Your task to perform on an android device: toggle wifi Image 0: 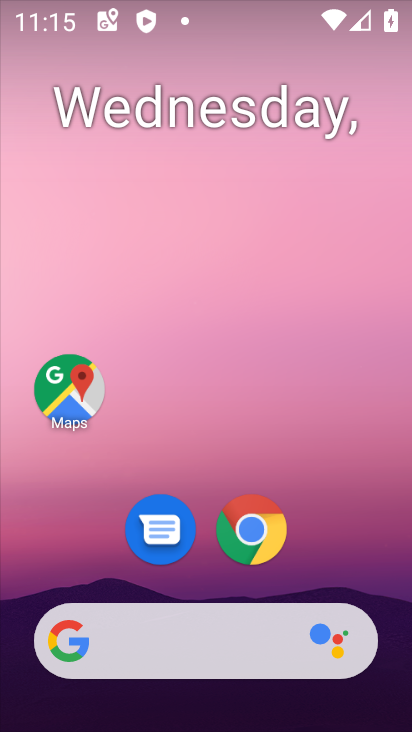
Step 0: drag from (232, 566) to (232, 53)
Your task to perform on an android device: toggle wifi Image 1: 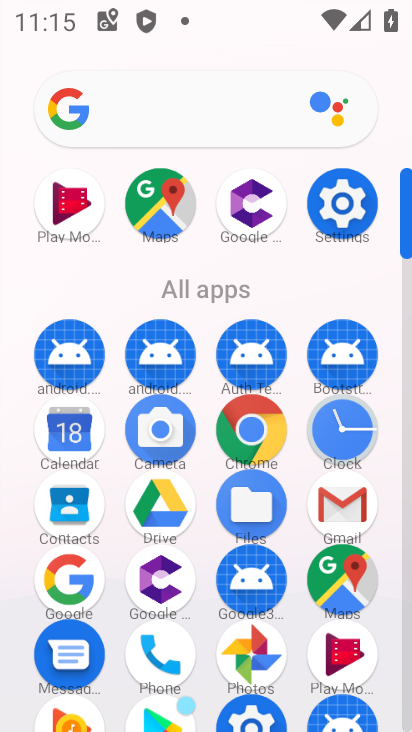
Step 1: click (355, 196)
Your task to perform on an android device: toggle wifi Image 2: 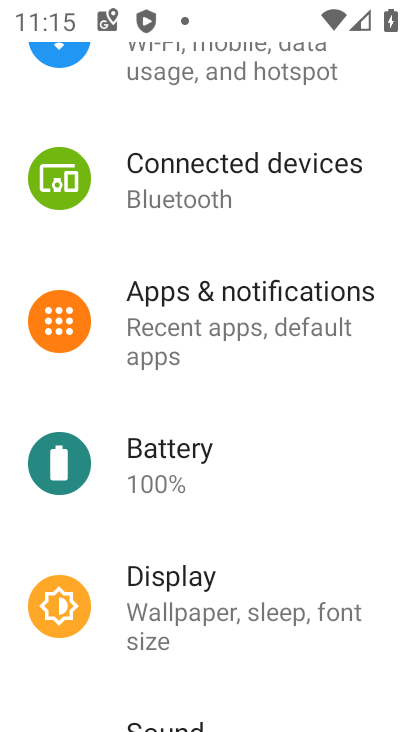
Step 2: drag from (201, 162) to (208, 625)
Your task to perform on an android device: toggle wifi Image 3: 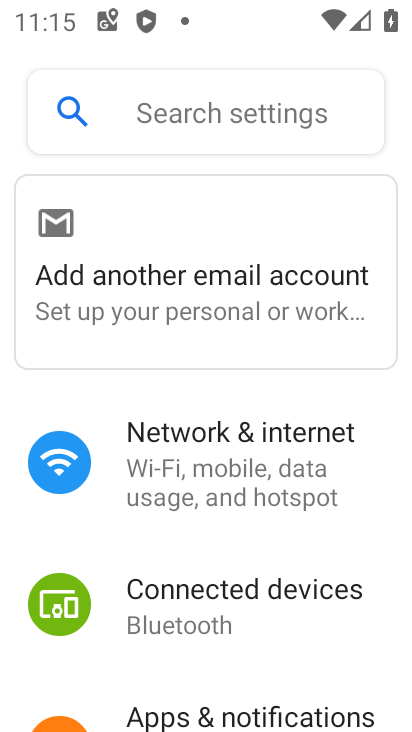
Step 3: click (210, 385)
Your task to perform on an android device: toggle wifi Image 4: 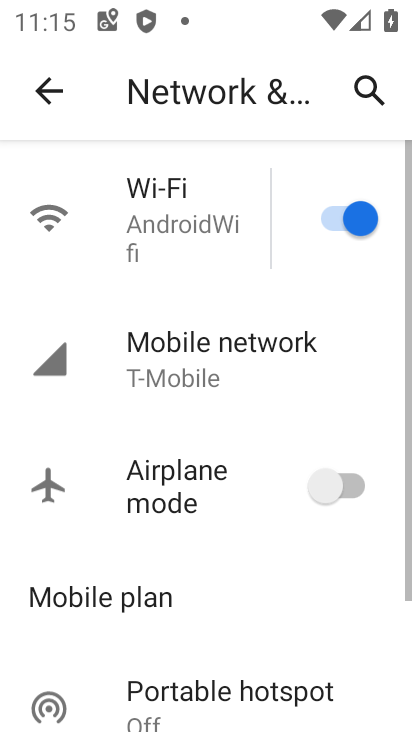
Step 4: click (193, 436)
Your task to perform on an android device: toggle wifi Image 5: 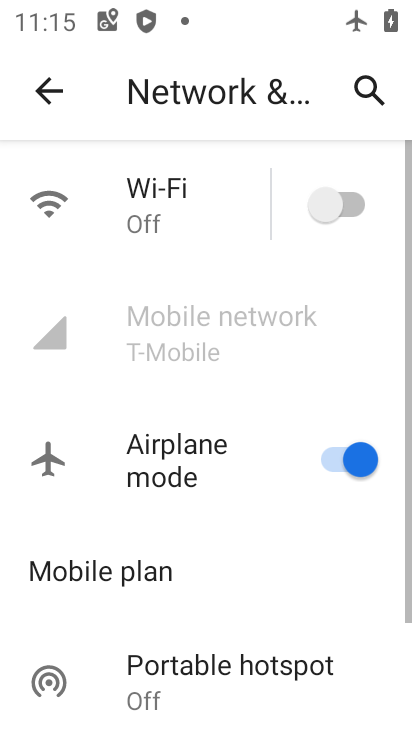
Step 5: click (193, 436)
Your task to perform on an android device: toggle wifi Image 6: 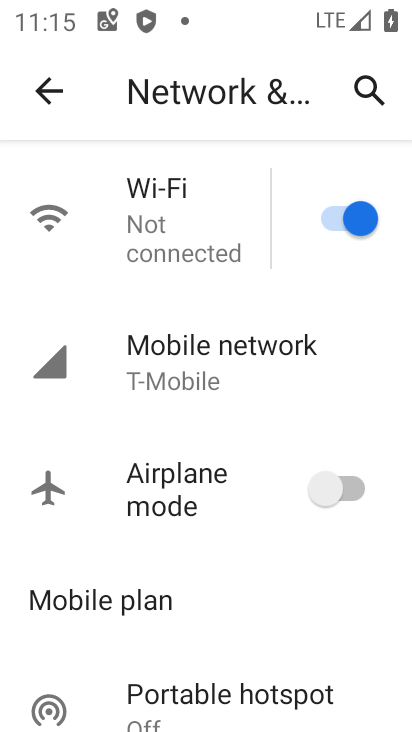
Step 6: task complete